Your task to perform on an android device: turn on sleep mode Image 0: 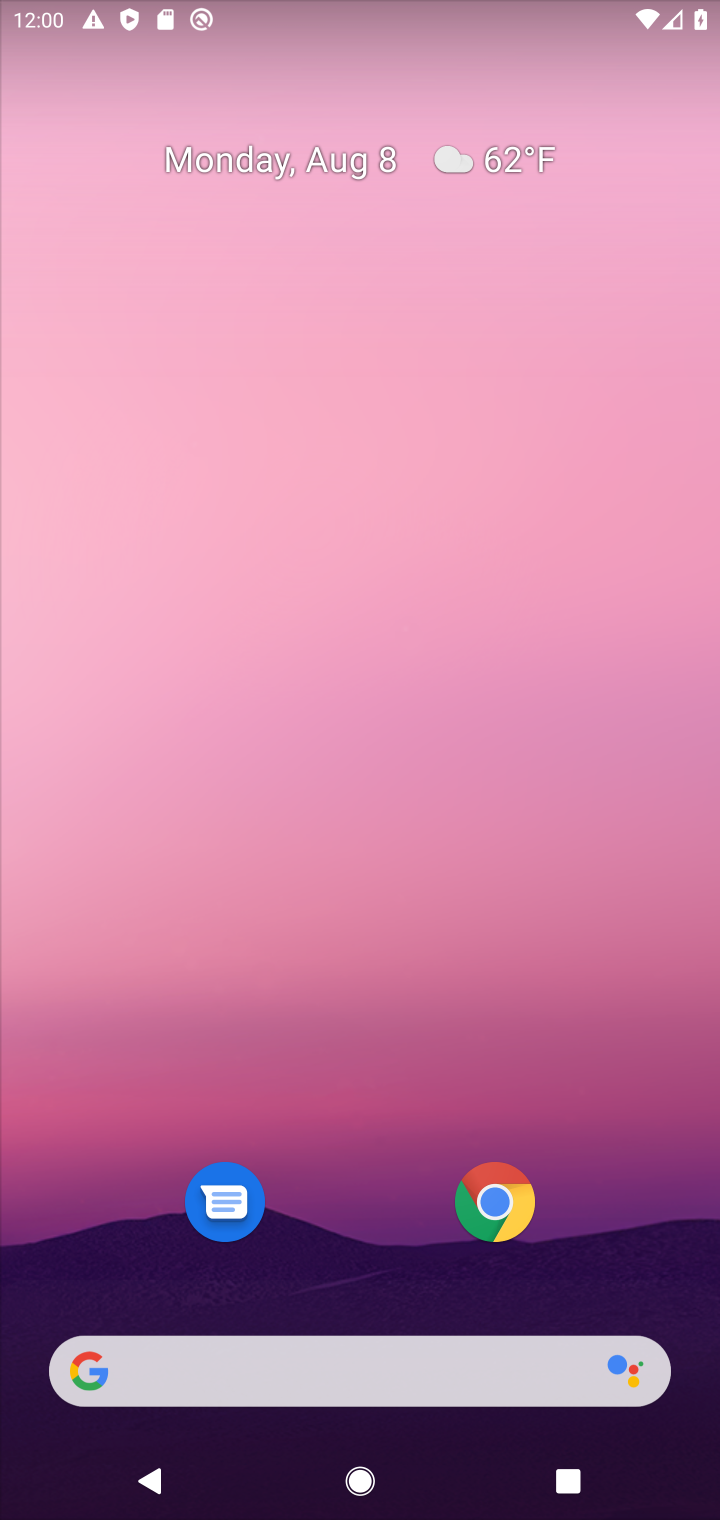
Step 0: drag from (339, 1024) to (358, 197)
Your task to perform on an android device: turn on sleep mode Image 1: 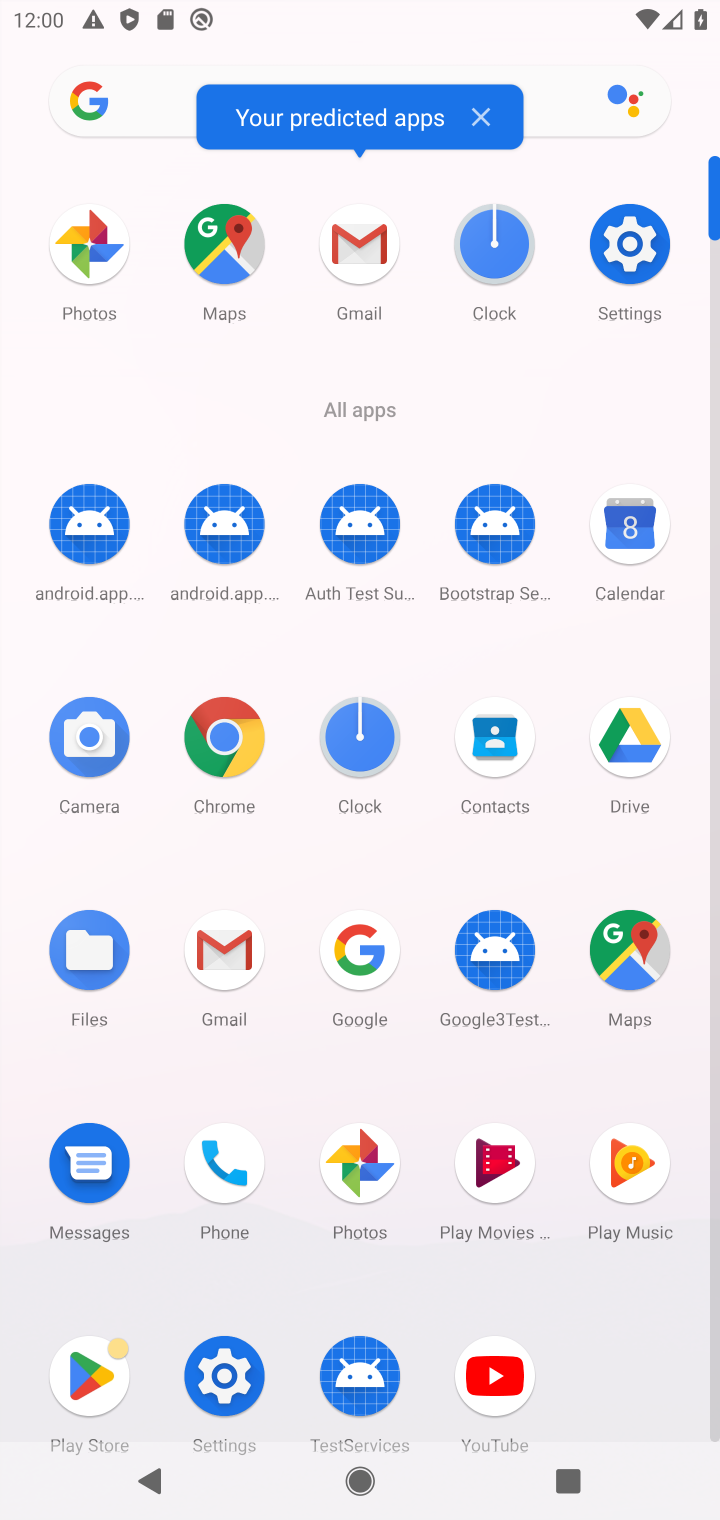
Step 1: click (635, 255)
Your task to perform on an android device: turn on sleep mode Image 2: 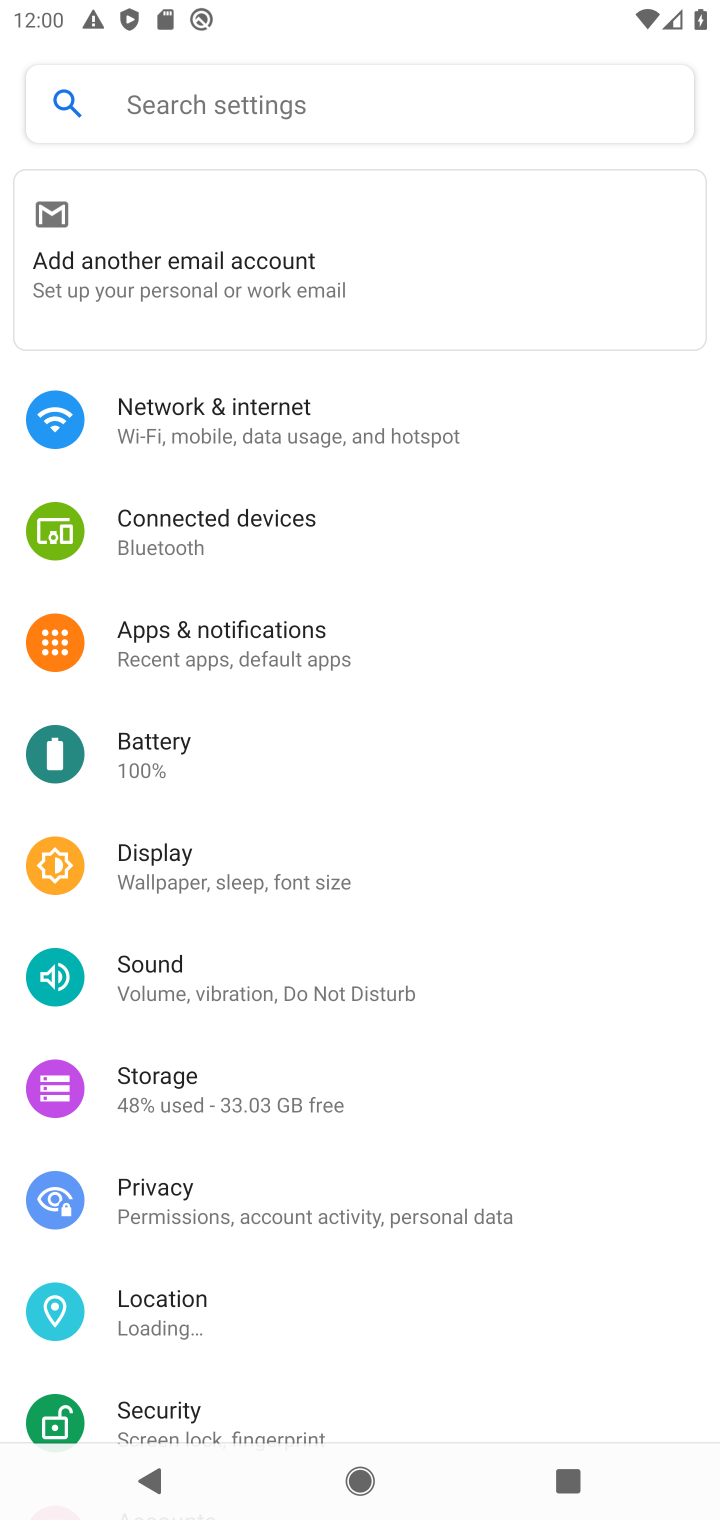
Step 2: task complete